Your task to perform on an android device: Open maps Image 0: 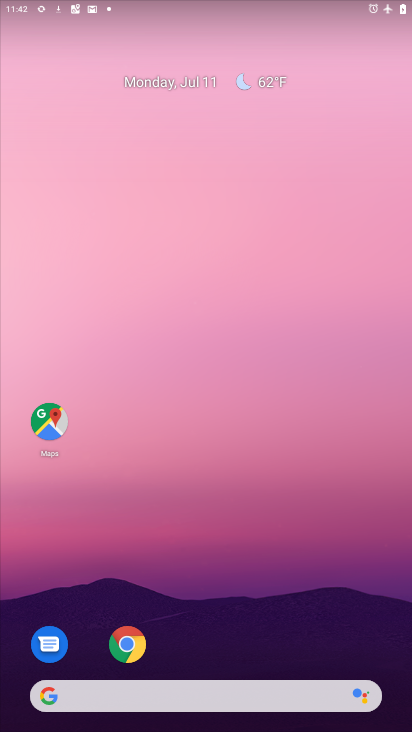
Step 0: drag from (191, 680) to (140, 48)
Your task to perform on an android device: Open maps Image 1: 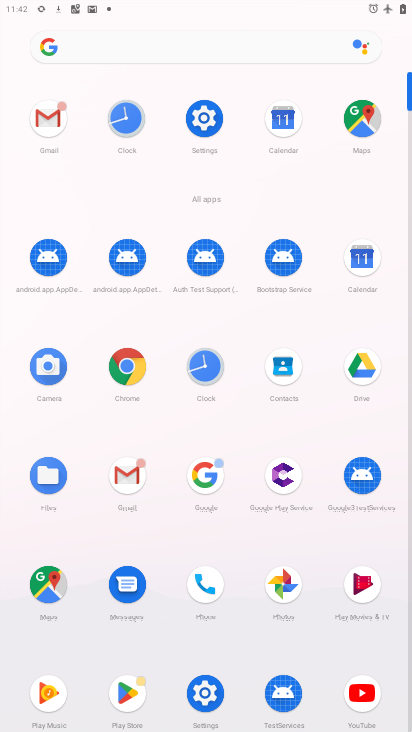
Step 1: click (59, 585)
Your task to perform on an android device: Open maps Image 2: 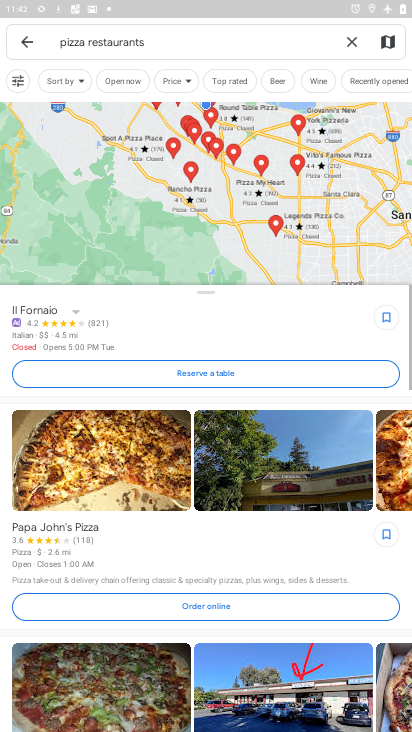
Step 2: click (23, 40)
Your task to perform on an android device: Open maps Image 3: 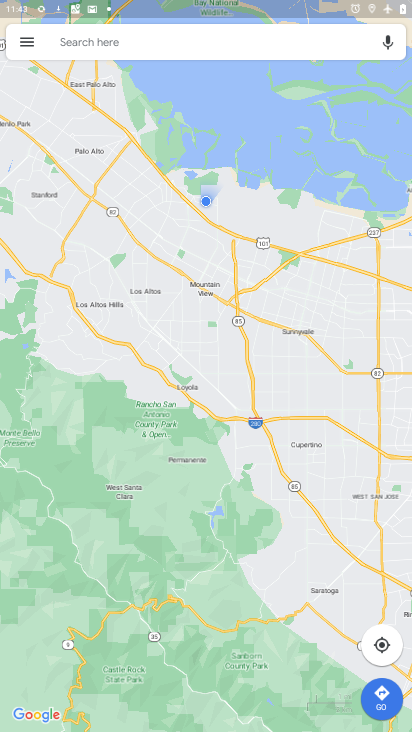
Step 3: task complete